Your task to perform on an android device: open app "YouTube Kids" (install if not already installed) and go to login screen Image 0: 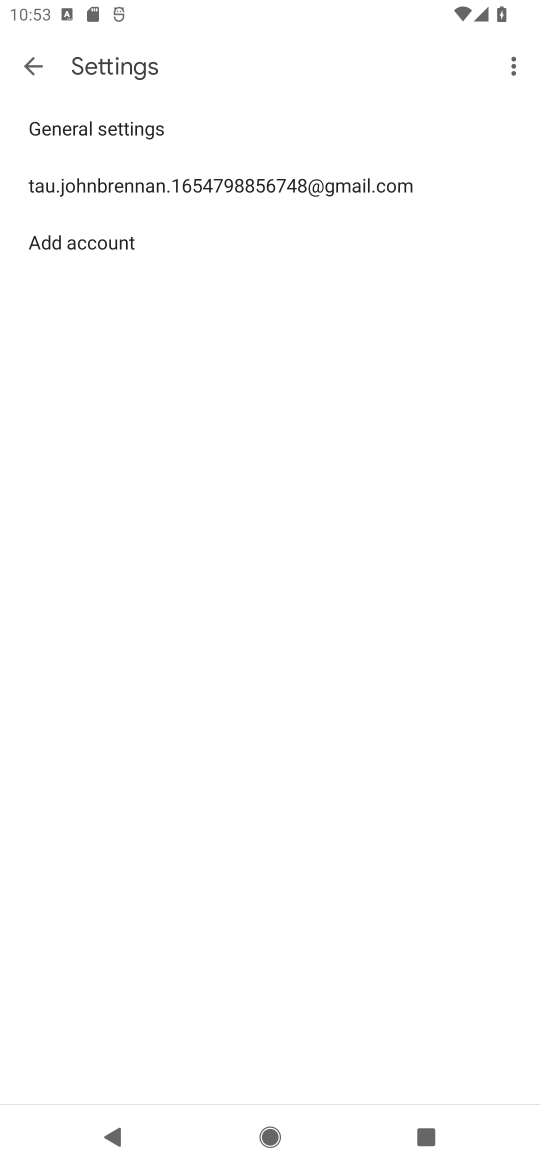
Step 0: press home button
Your task to perform on an android device: open app "YouTube Kids" (install if not already installed) and go to login screen Image 1: 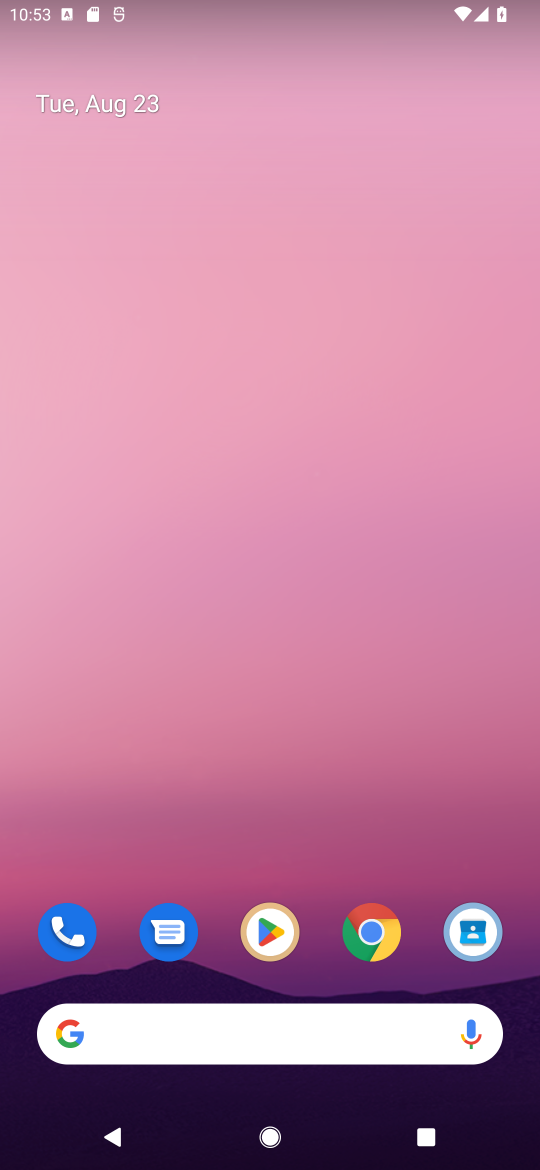
Step 1: click (267, 949)
Your task to perform on an android device: open app "YouTube Kids" (install if not already installed) and go to login screen Image 2: 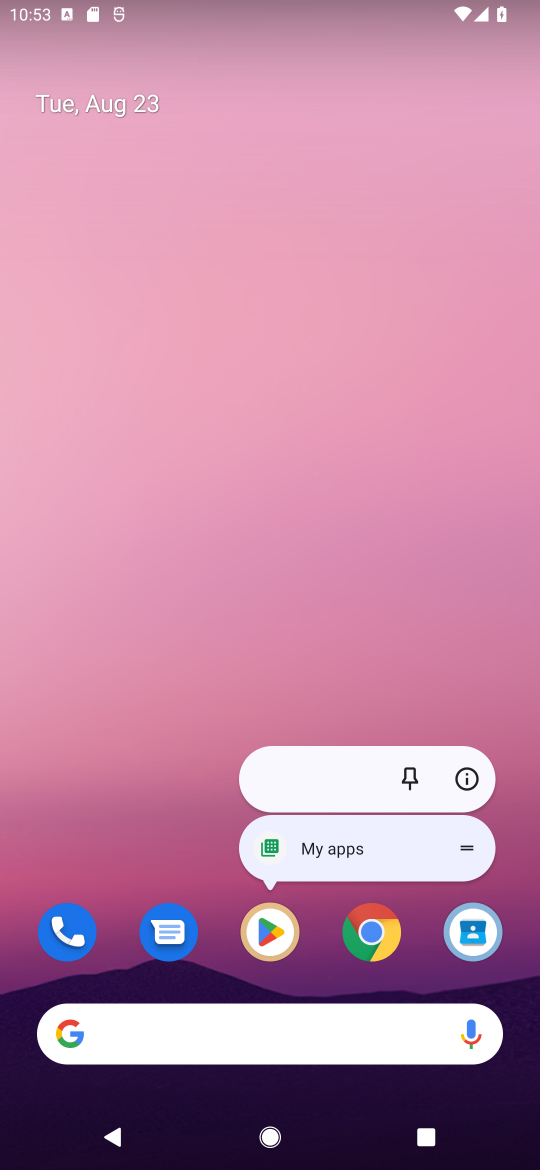
Step 2: click (260, 931)
Your task to perform on an android device: open app "YouTube Kids" (install if not already installed) and go to login screen Image 3: 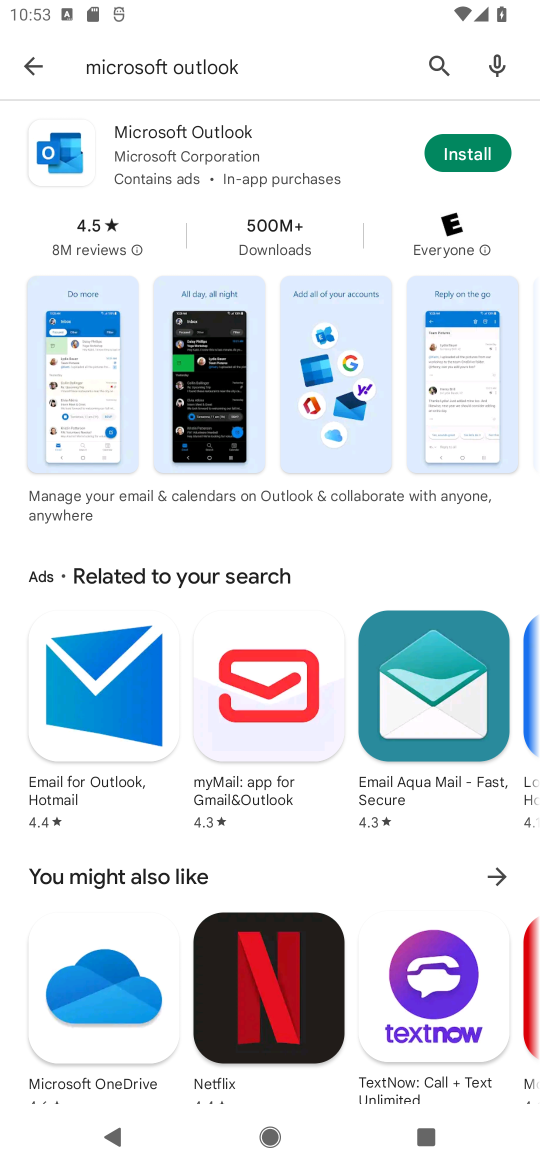
Step 3: click (430, 55)
Your task to perform on an android device: open app "YouTube Kids" (install if not already installed) and go to login screen Image 4: 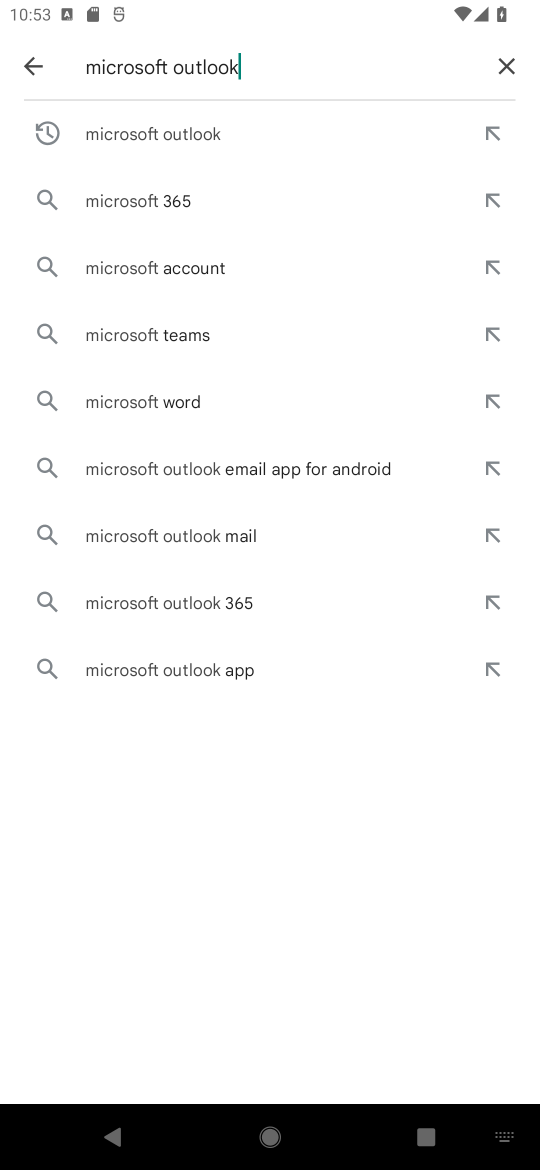
Step 4: click (510, 53)
Your task to perform on an android device: open app "YouTube Kids" (install if not already installed) and go to login screen Image 5: 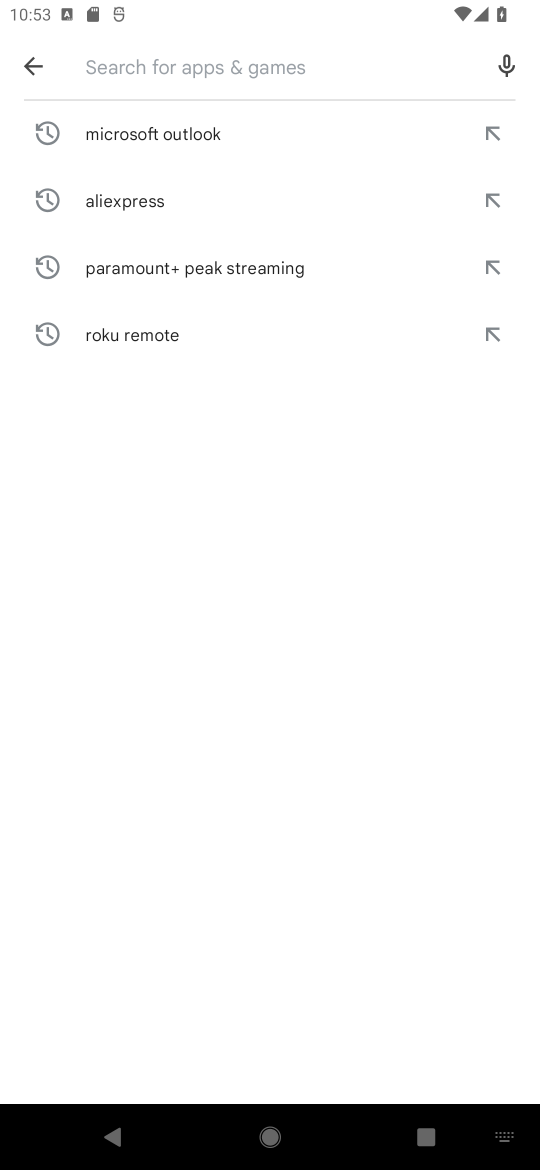
Step 5: click (144, 73)
Your task to perform on an android device: open app "YouTube Kids" (install if not already installed) and go to login screen Image 6: 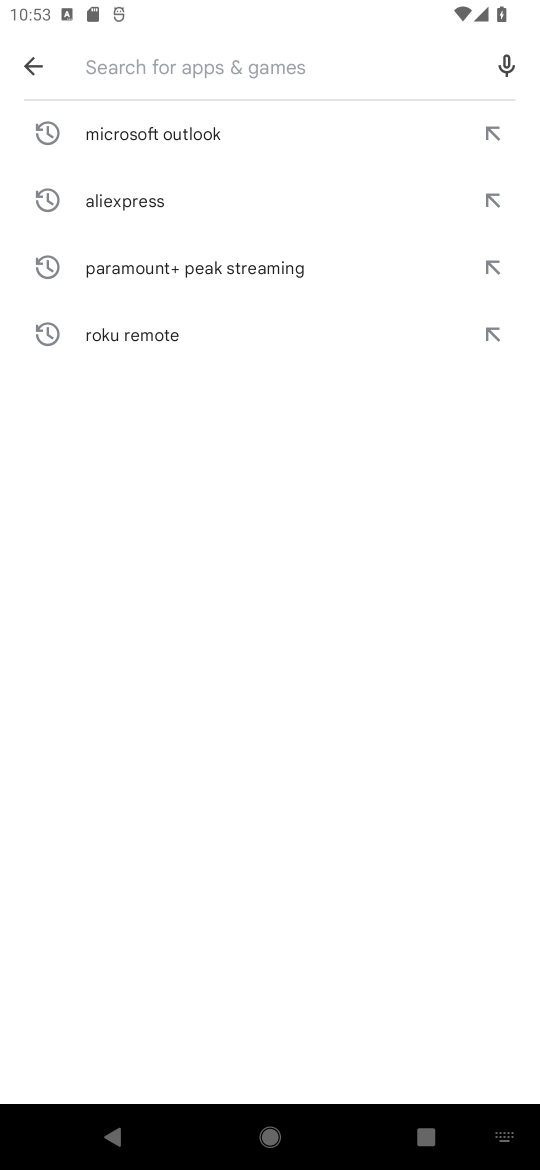
Step 6: type "YouTube Kids"
Your task to perform on an android device: open app "YouTube Kids" (install if not already installed) and go to login screen Image 7: 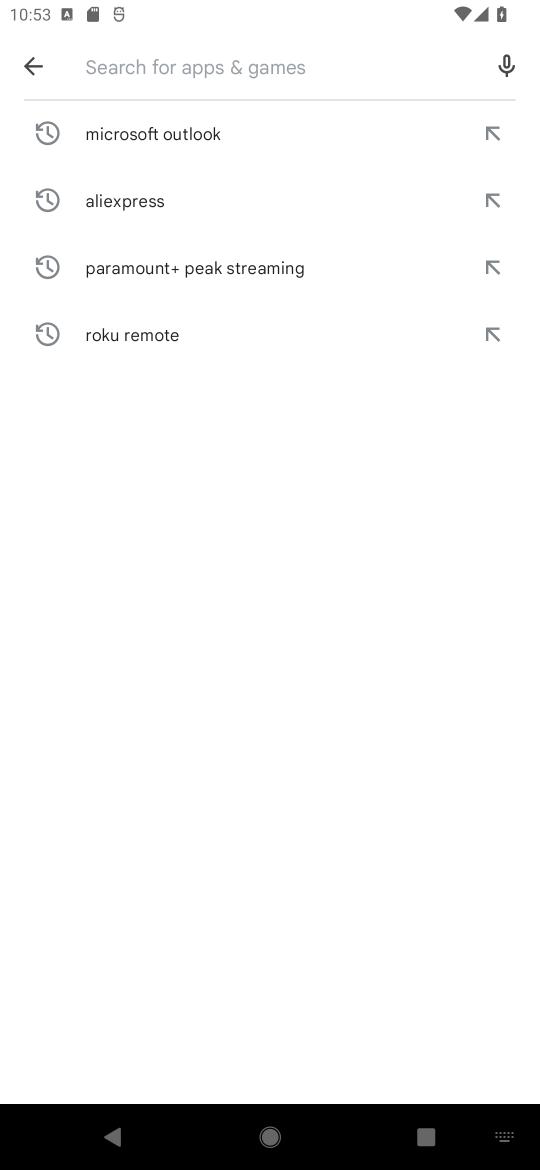
Step 7: click (178, 767)
Your task to perform on an android device: open app "YouTube Kids" (install if not already installed) and go to login screen Image 8: 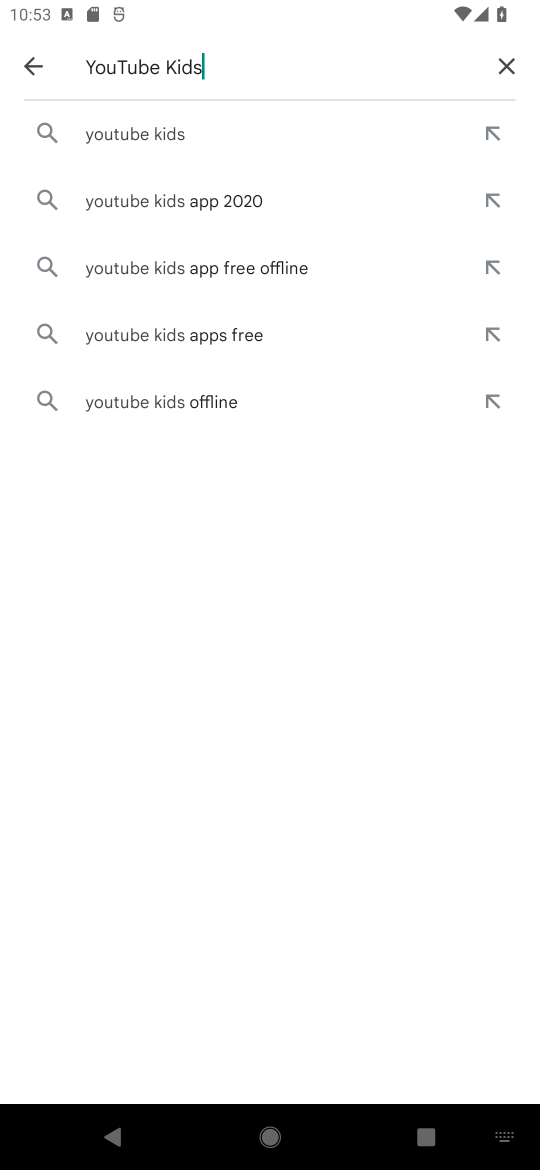
Step 8: click (163, 126)
Your task to perform on an android device: open app "YouTube Kids" (install if not already installed) and go to login screen Image 9: 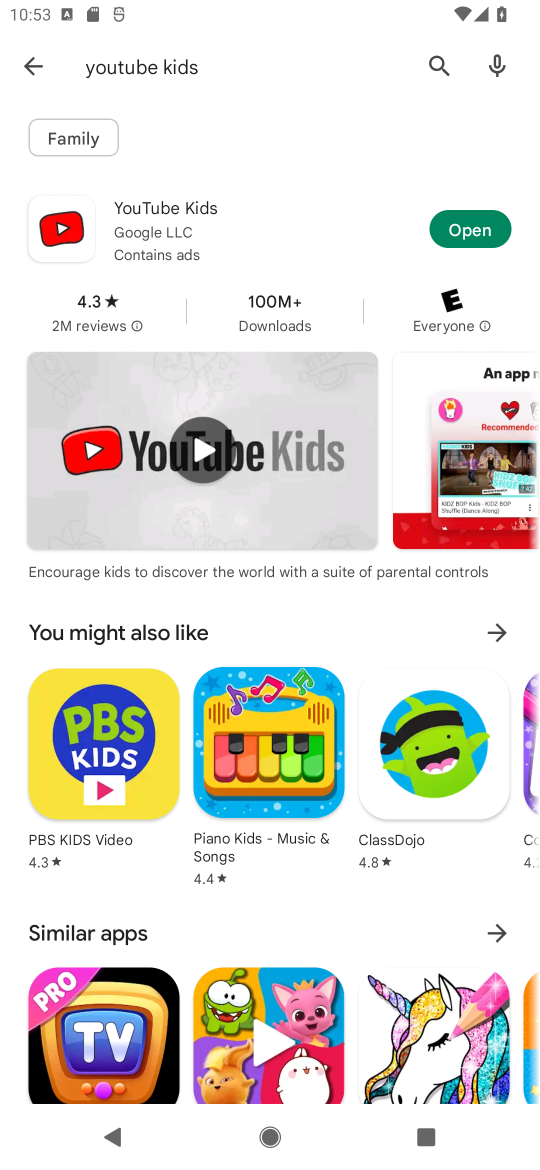
Step 9: click (476, 231)
Your task to perform on an android device: open app "YouTube Kids" (install if not already installed) and go to login screen Image 10: 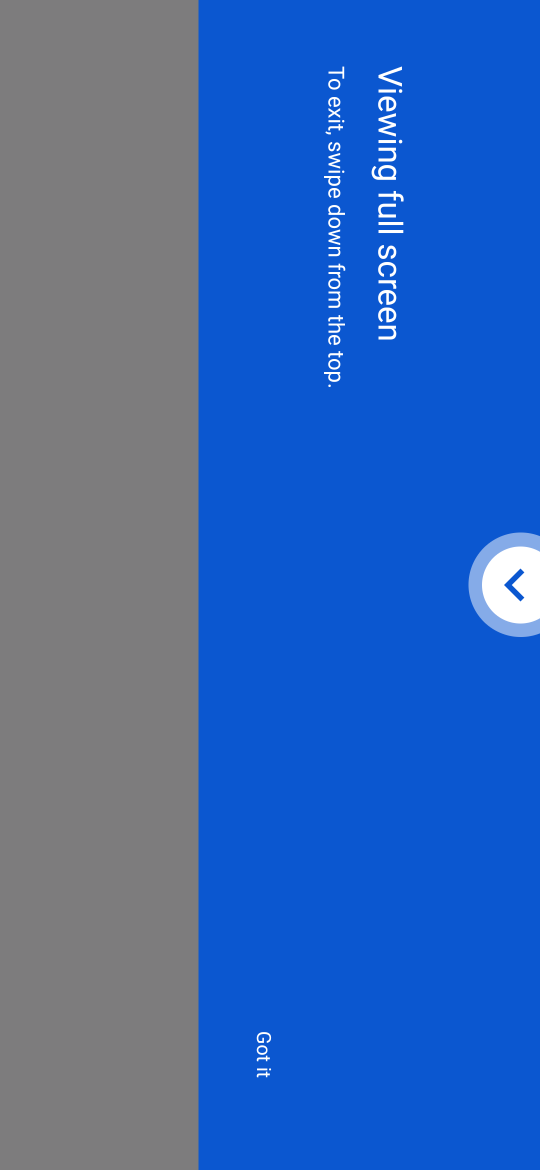
Step 10: task complete